Your task to perform on an android device: Open Google Image 0: 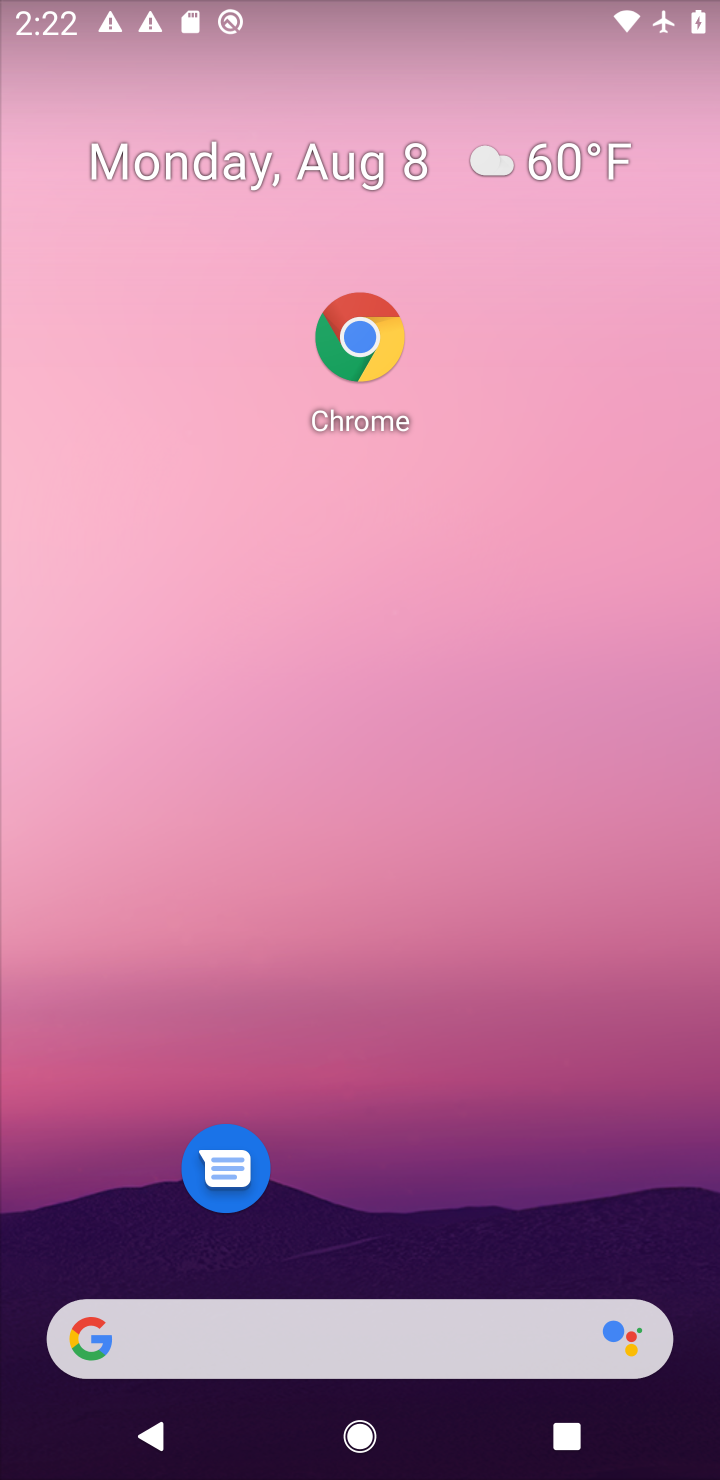
Step 0: drag from (333, 1216) to (182, 438)
Your task to perform on an android device: Open Google Image 1: 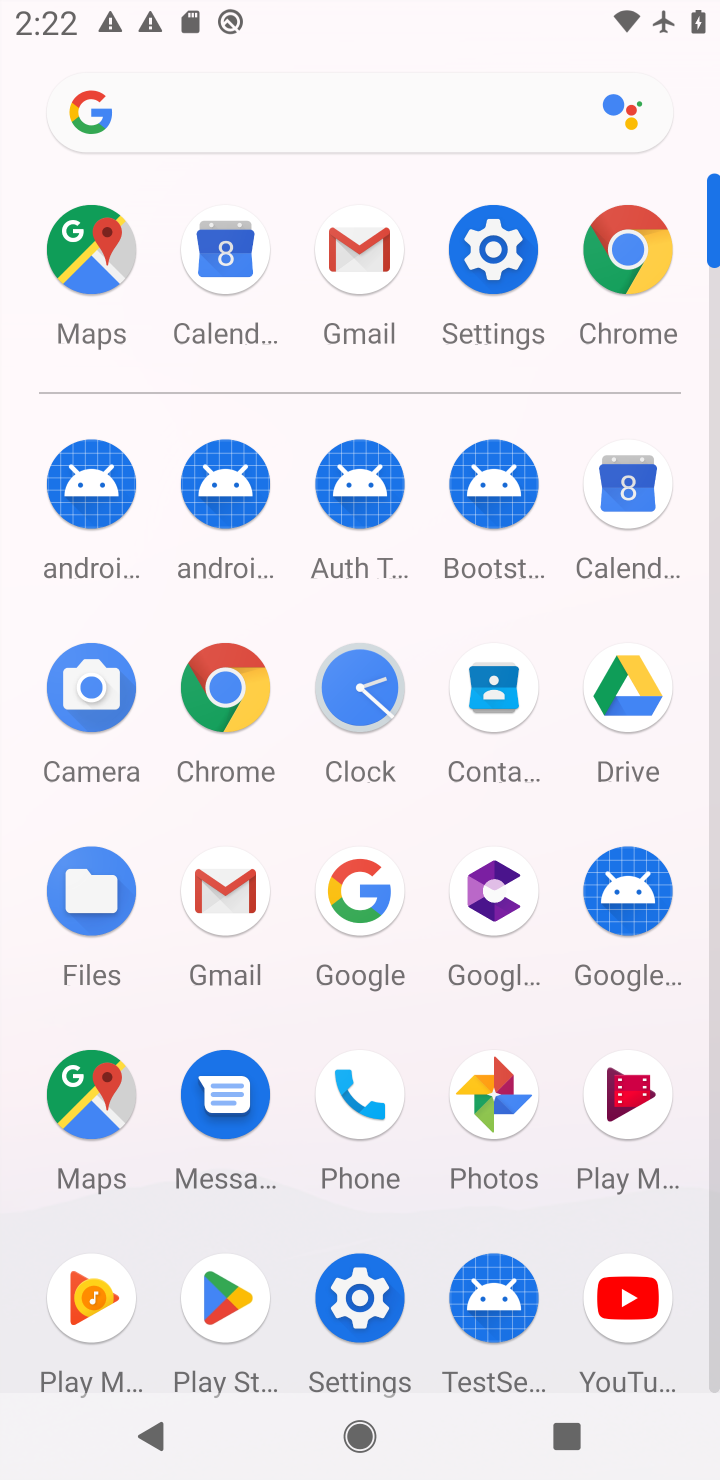
Step 1: drag from (198, 673) to (246, 929)
Your task to perform on an android device: Open Google Image 2: 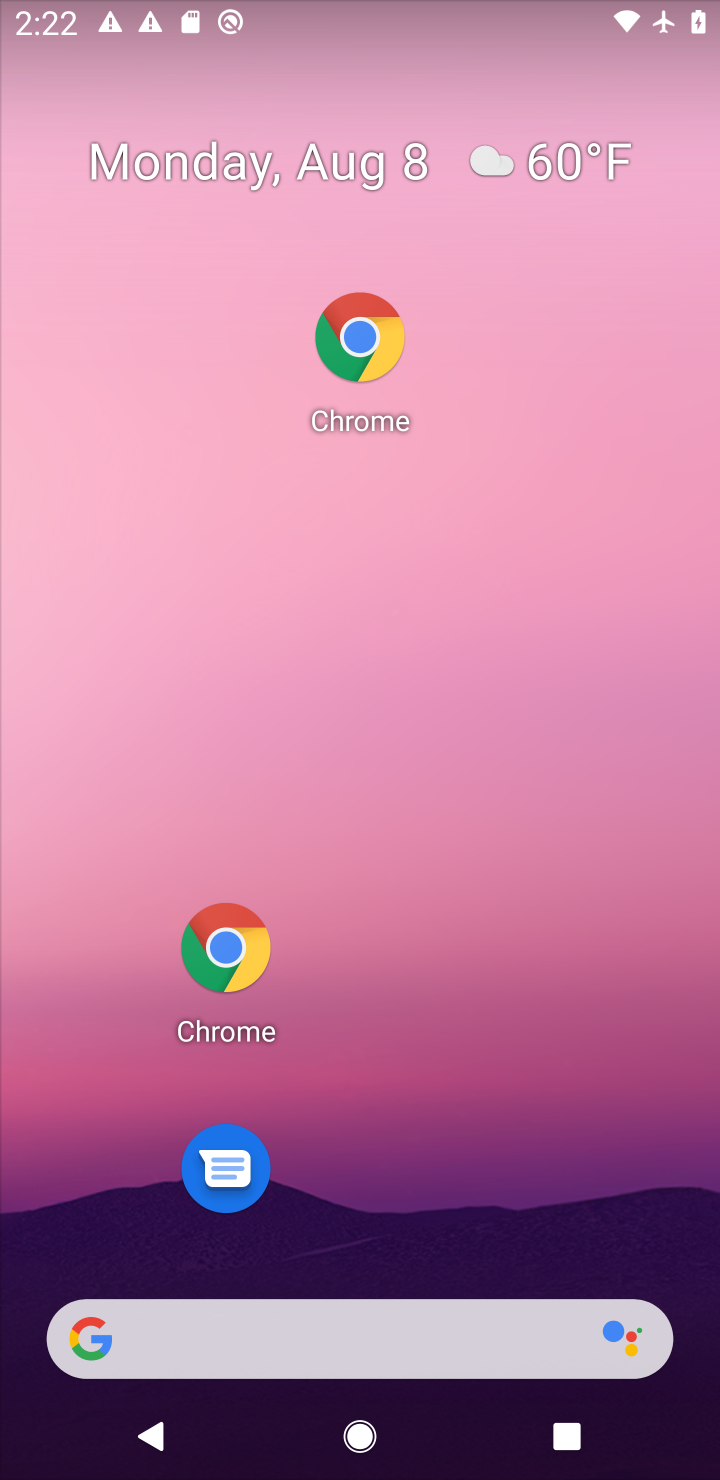
Step 2: click (246, 929)
Your task to perform on an android device: Open Google Image 3: 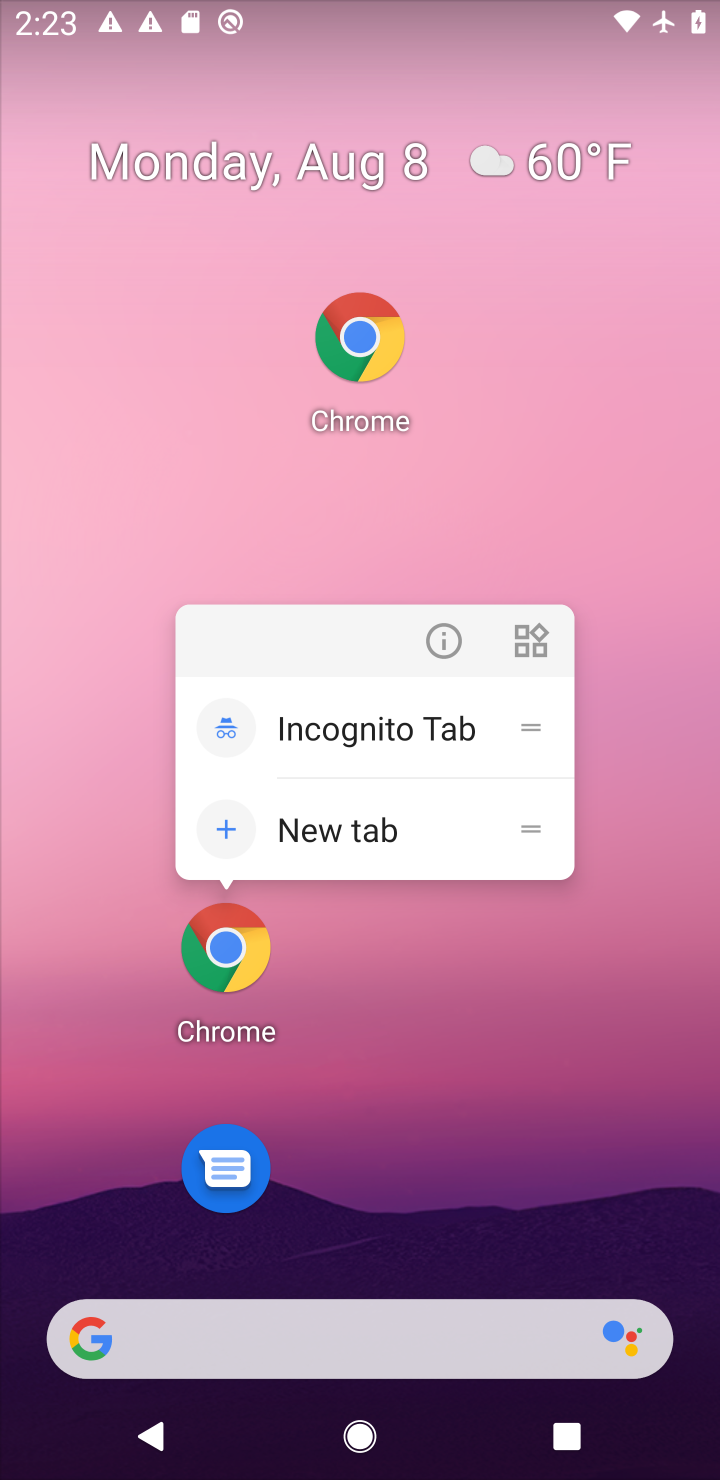
Step 3: click (246, 929)
Your task to perform on an android device: Open Google Image 4: 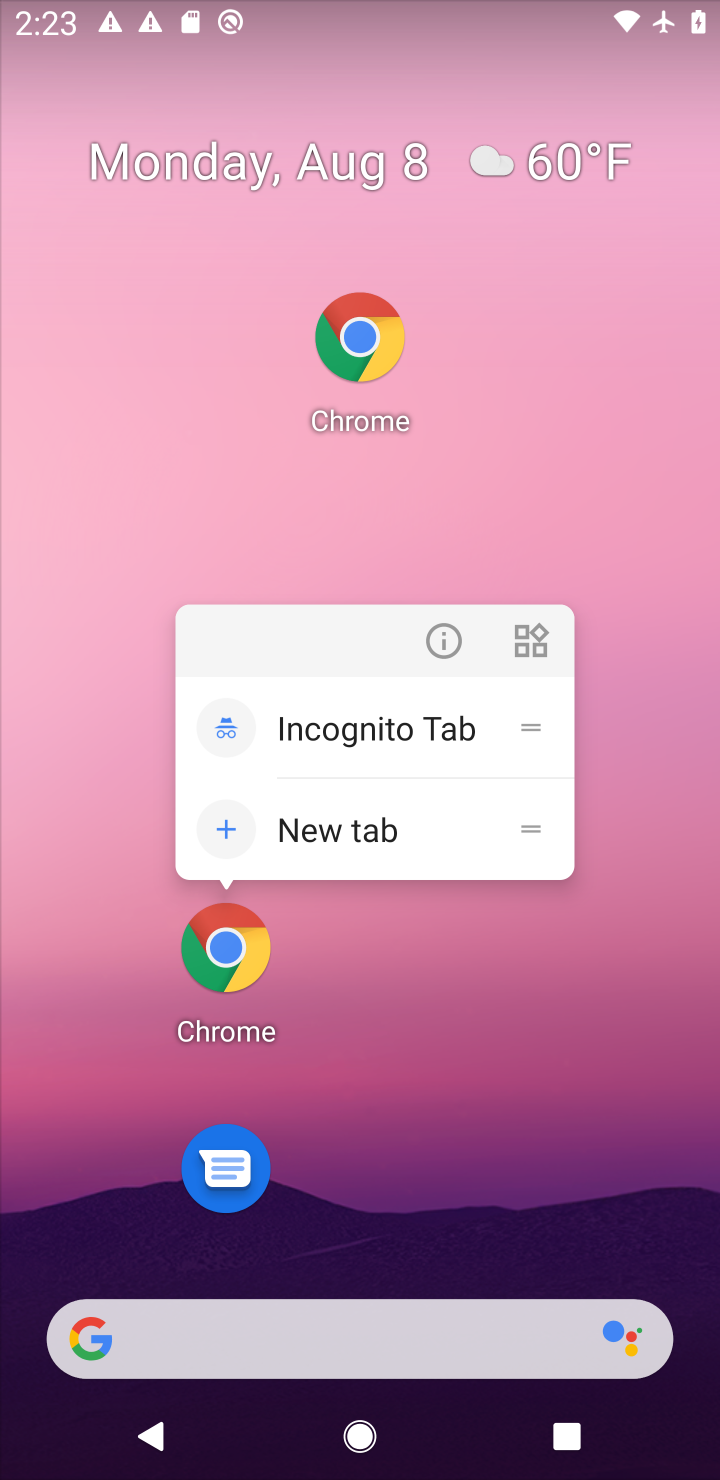
Step 4: task complete